Your task to perform on an android device: turn notification dots on Image 0: 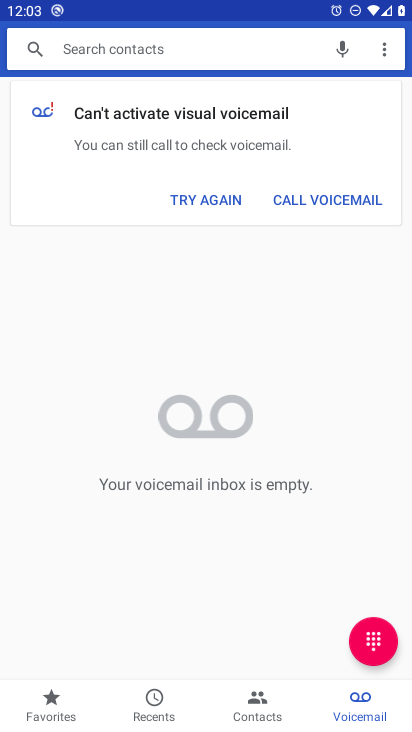
Step 0: press home button
Your task to perform on an android device: turn notification dots on Image 1: 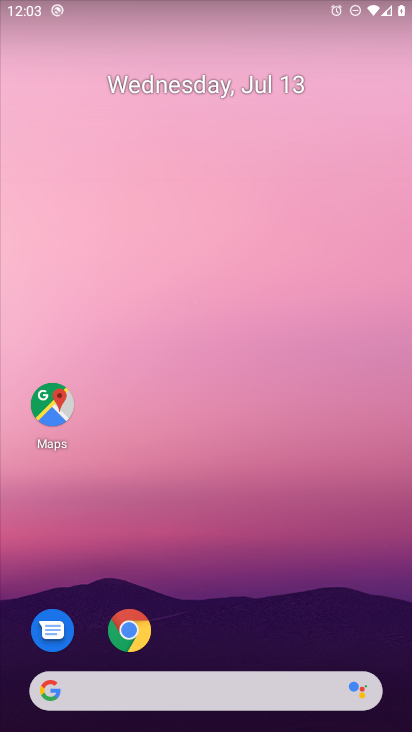
Step 1: drag from (275, 621) to (129, 33)
Your task to perform on an android device: turn notification dots on Image 2: 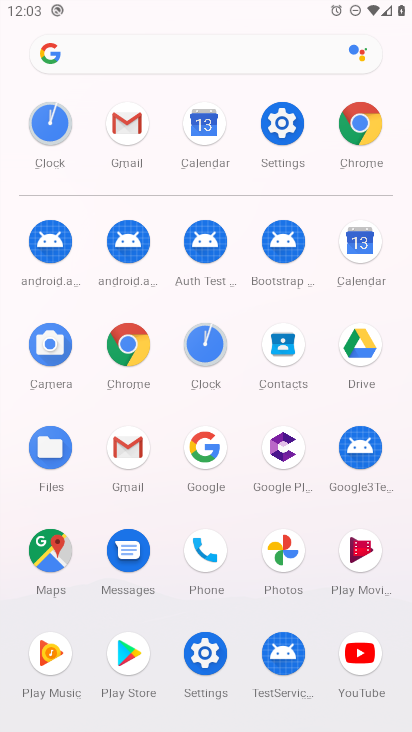
Step 2: click (292, 136)
Your task to perform on an android device: turn notification dots on Image 3: 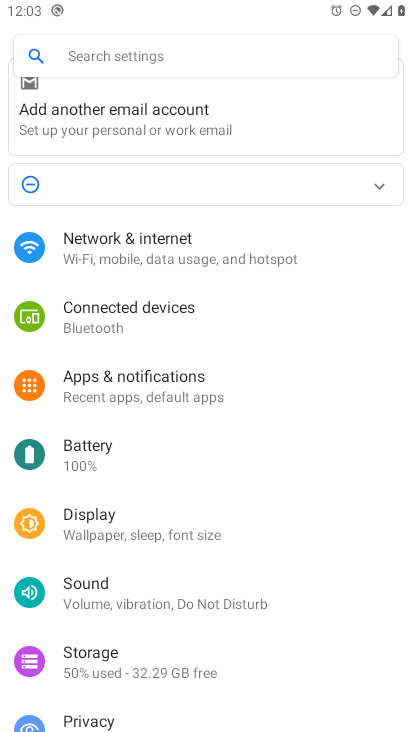
Step 3: click (210, 389)
Your task to perform on an android device: turn notification dots on Image 4: 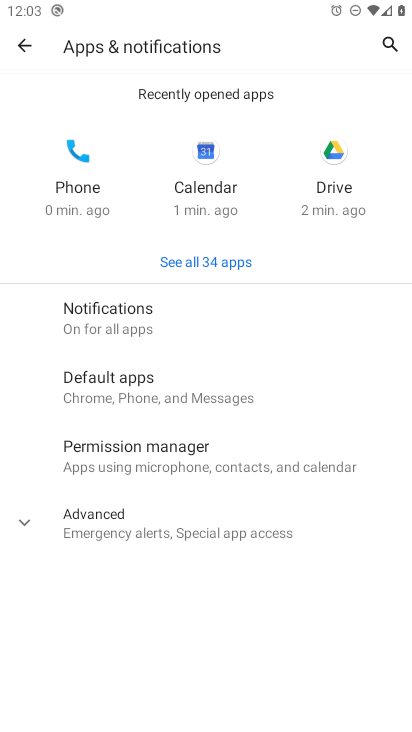
Step 4: click (132, 314)
Your task to perform on an android device: turn notification dots on Image 5: 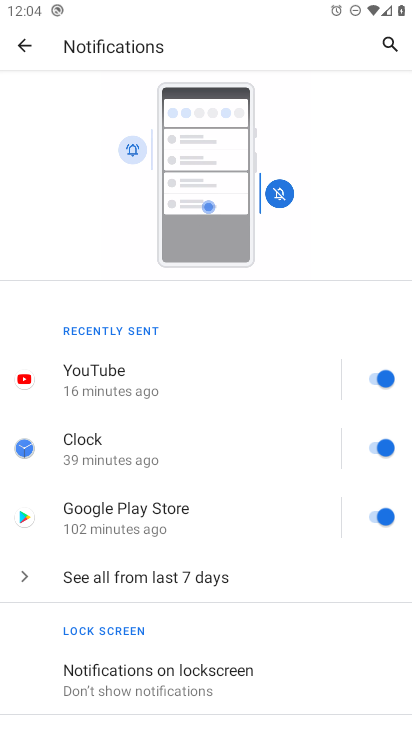
Step 5: drag from (95, 603) to (117, 190)
Your task to perform on an android device: turn notification dots on Image 6: 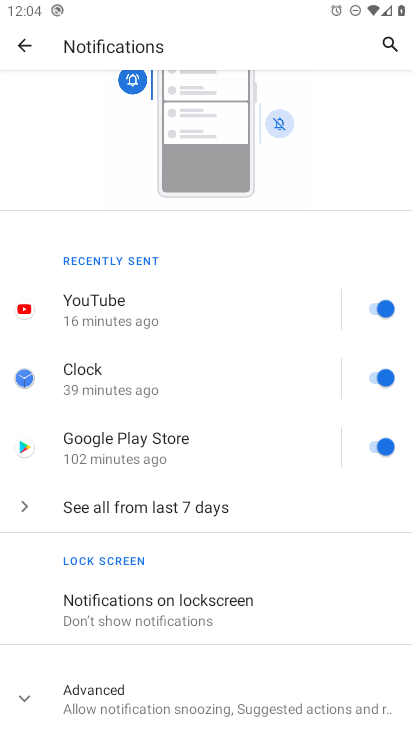
Step 6: click (27, 701)
Your task to perform on an android device: turn notification dots on Image 7: 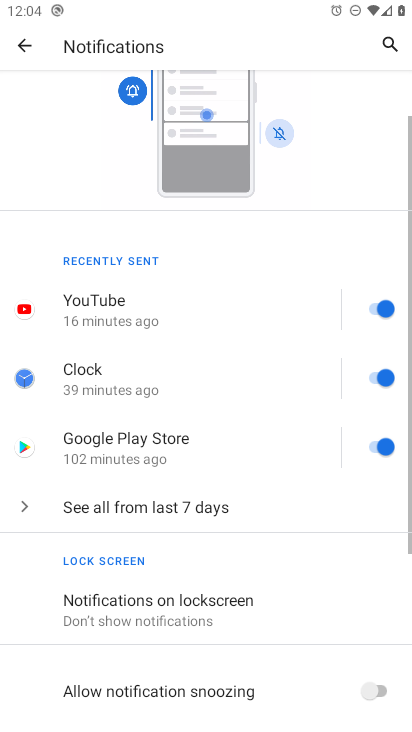
Step 7: drag from (311, 614) to (273, 263)
Your task to perform on an android device: turn notification dots on Image 8: 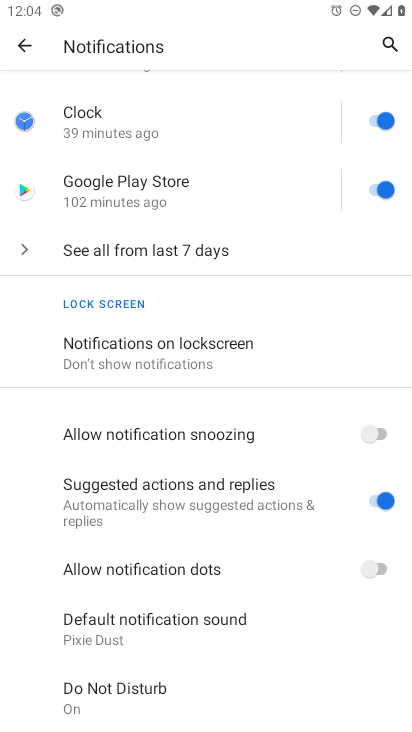
Step 8: click (383, 562)
Your task to perform on an android device: turn notification dots on Image 9: 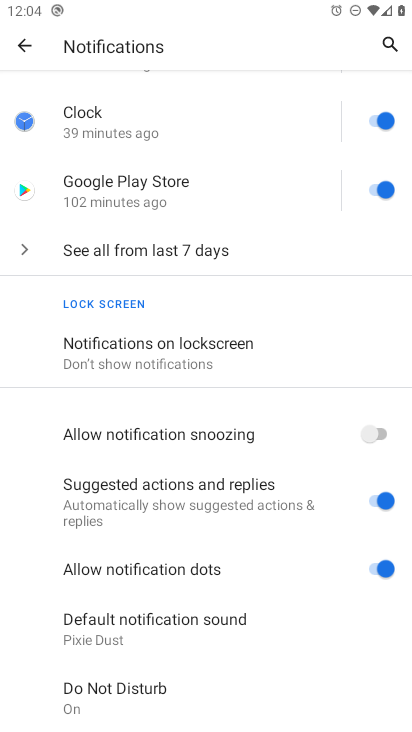
Step 9: task complete